Your task to perform on an android device: Go to location settings Image 0: 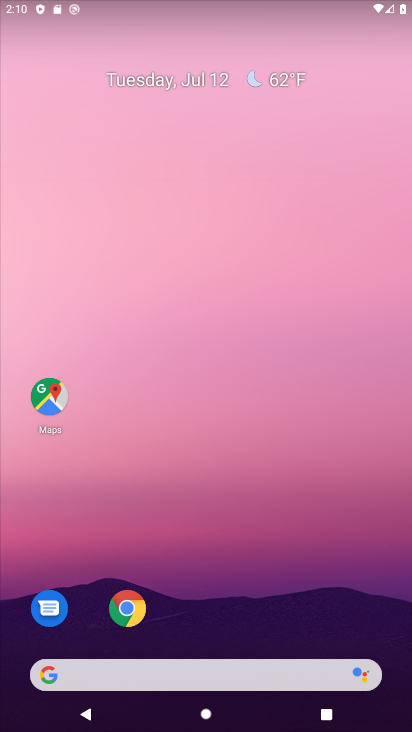
Step 0: drag from (164, 677) to (331, 209)
Your task to perform on an android device: Go to location settings Image 1: 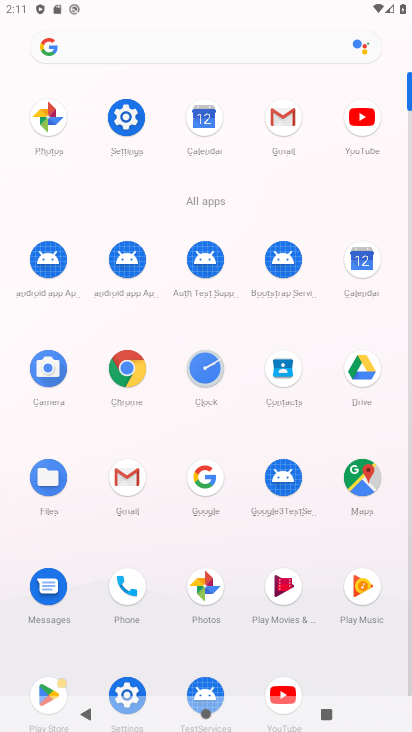
Step 1: click (132, 116)
Your task to perform on an android device: Go to location settings Image 2: 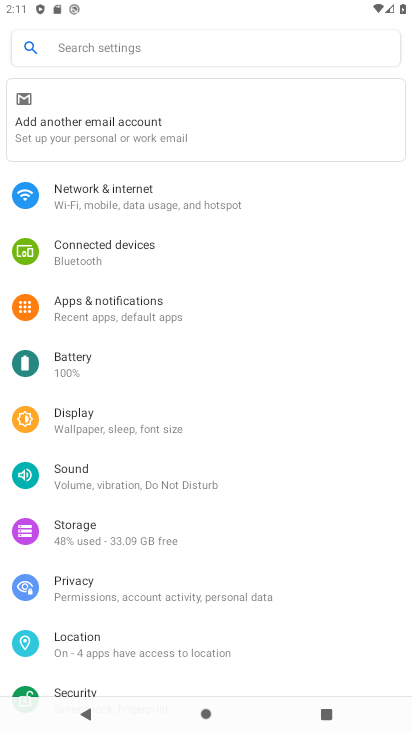
Step 2: click (88, 645)
Your task to perform on an android device: Go to location settings Image 3: 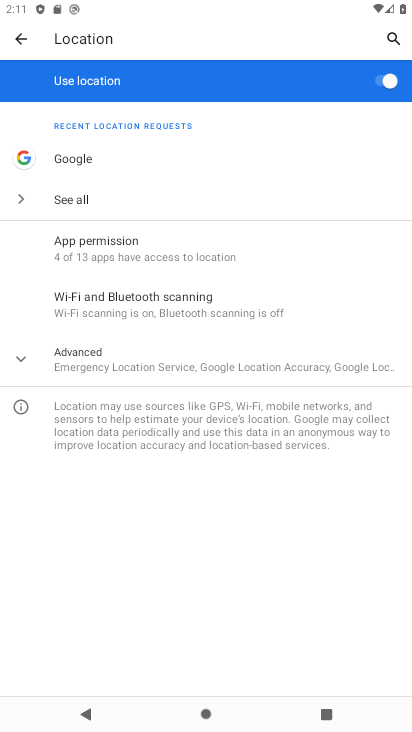
Step 3: task complete